Your task to perform on an android device: Open Reddit.com Image 0: 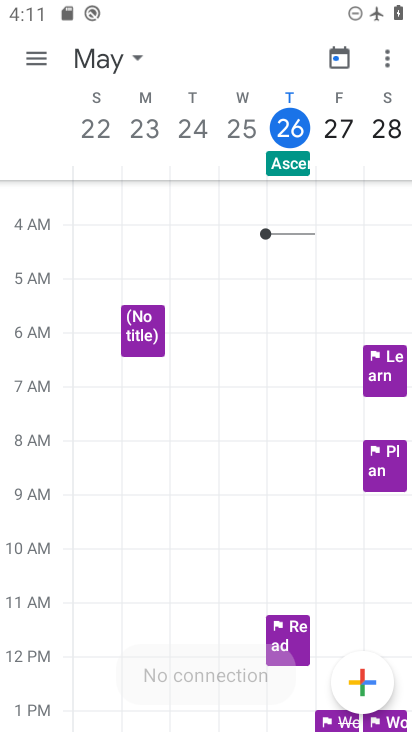
Step 0: press back button
Your task to perform on an android device: Open Reddit.com Image 1: 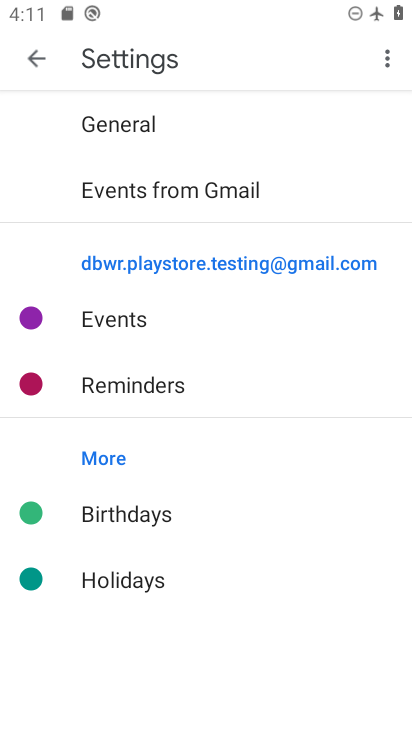
Step 1: press home button
Your task to perform on an android device: Open Reddit.com Image 2: 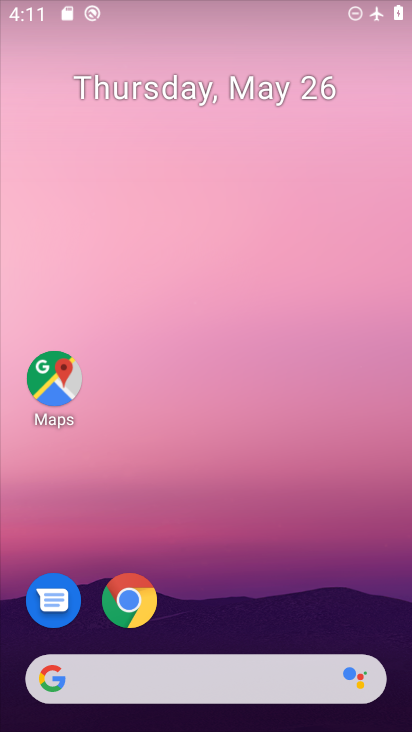
Step 2: drag from (308, 530) to (202, 20)
Your task to perform on an android device: Open Reddit.com Image 3: 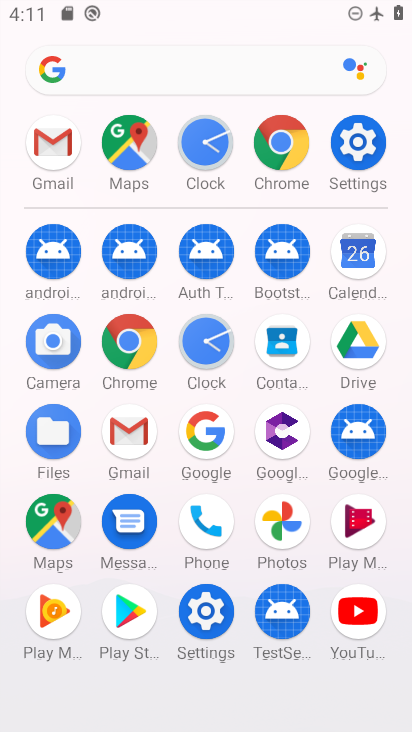
Step 3: click (124, 344)
Your task to perform on an android device: Open Reddit.com Image 4: 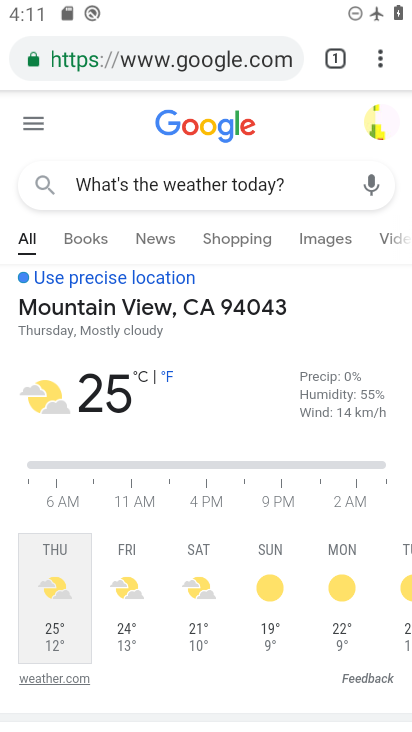
Step 4: click (202, 62)
Your task to perform on an android device: Open Reddit.com Image 5: 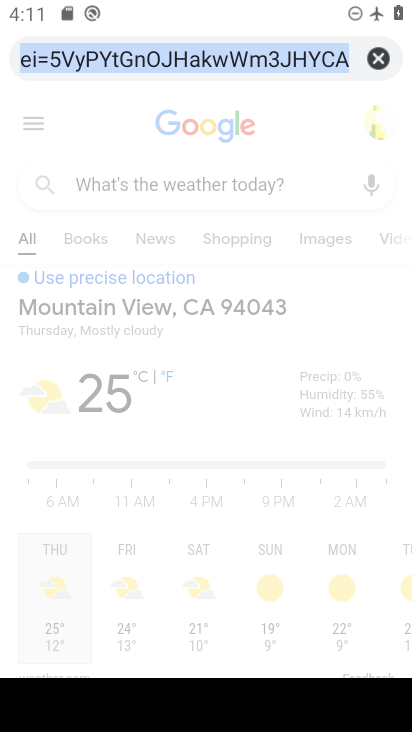
Step 5: click (368, 56)
Your task to perform on an android device: Open Reddit.com Image 6: 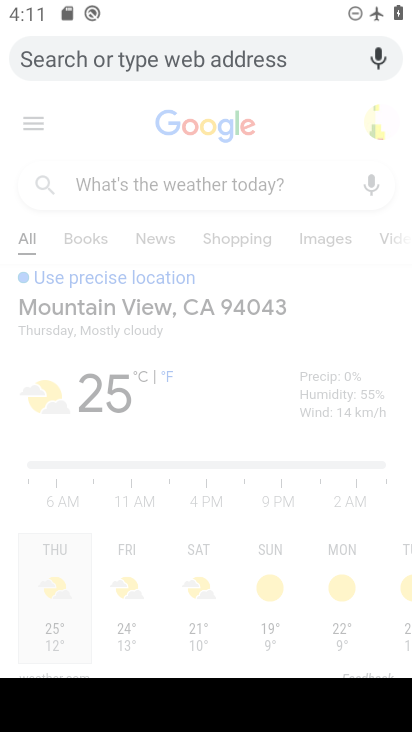
Step 6: type " Reddit.com"
Your task to perform on an android device: Open Reddit.com Image 7: 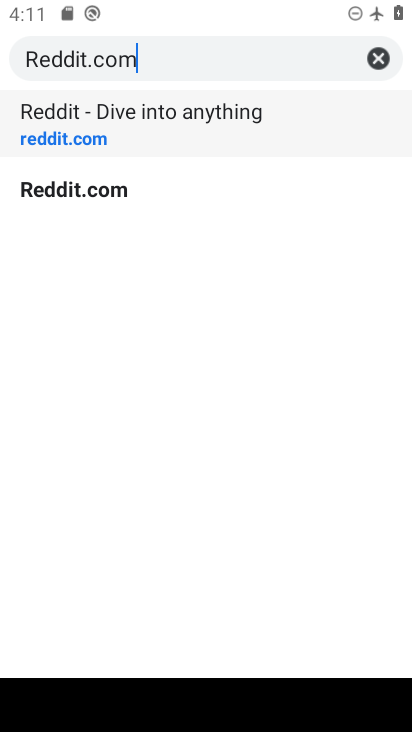
Step 7: type ""
Your task to perform on an android device: Open Reddit.com Image 8: 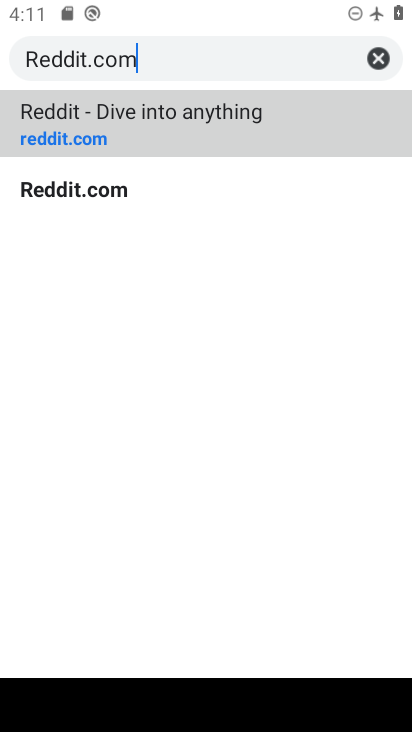
Step 8: click (129, 133)
Your task to perform on an android device: Open Reddit.com Image 9: 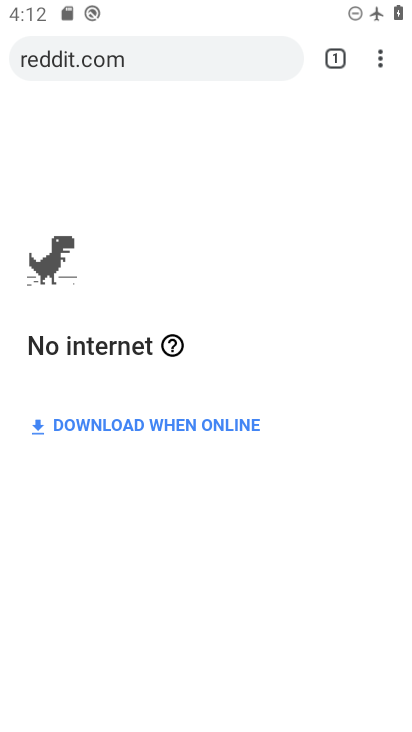
Step 9: task complete